Your task to perform on an android device: change the clock display to show seconds Image 0: 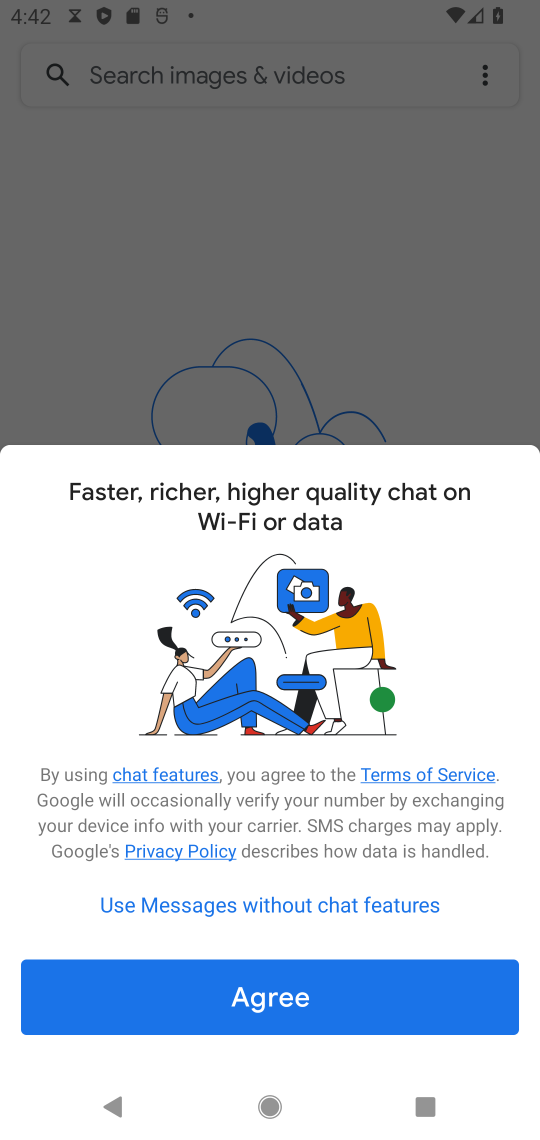
Step 0: press home button
Your task to perform on an android device: change the clock display to show seconds Image 1: 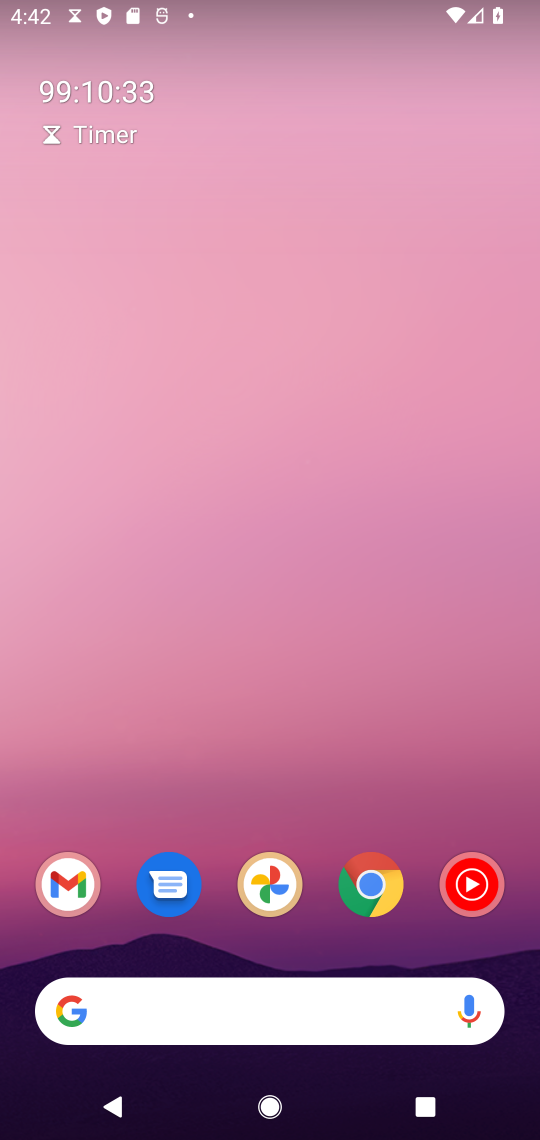
Step 1: drag from (415, 1012) to (497, 333)
Your task to perform on an android device: change the clock display to show seconds Image 2: 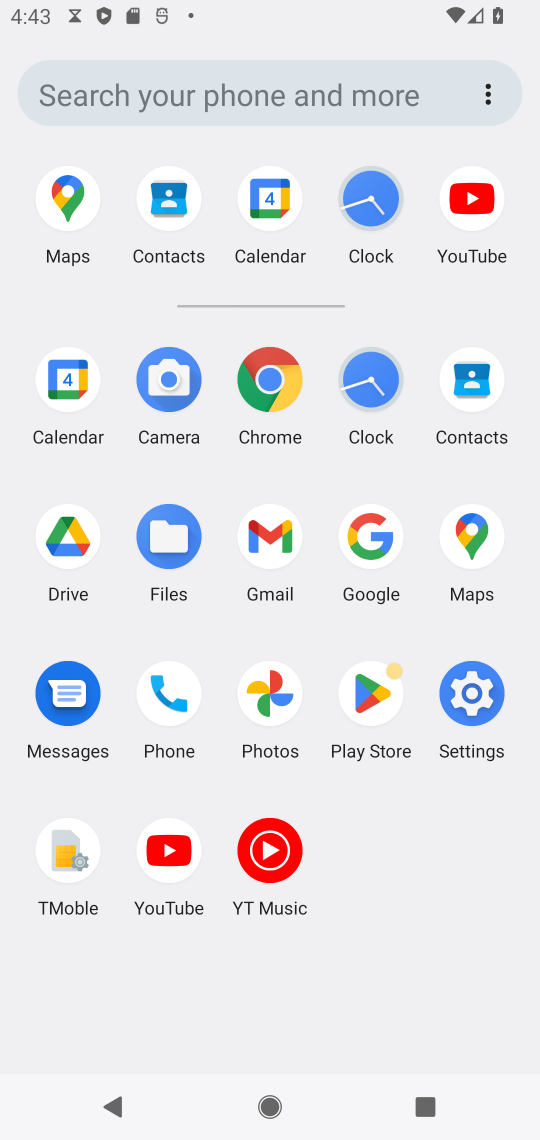
Step 2: click (374, 382)
Your task to perform on an android device: change the clock display to show seconds Image 3: 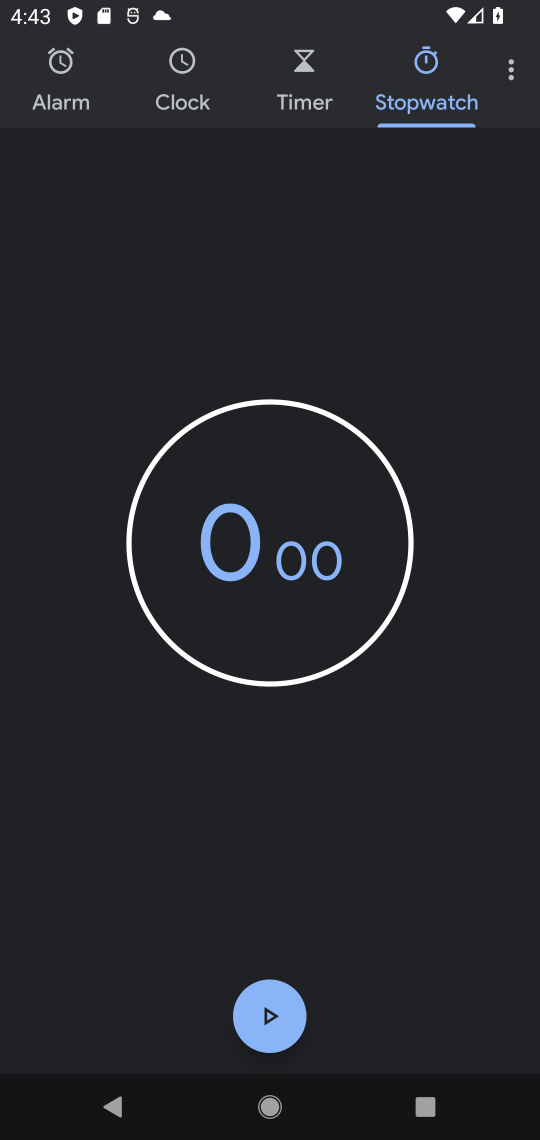
Step 3: click (512, 85)
Your task to perform on an android device: change the clock display to show seconds Image 4: 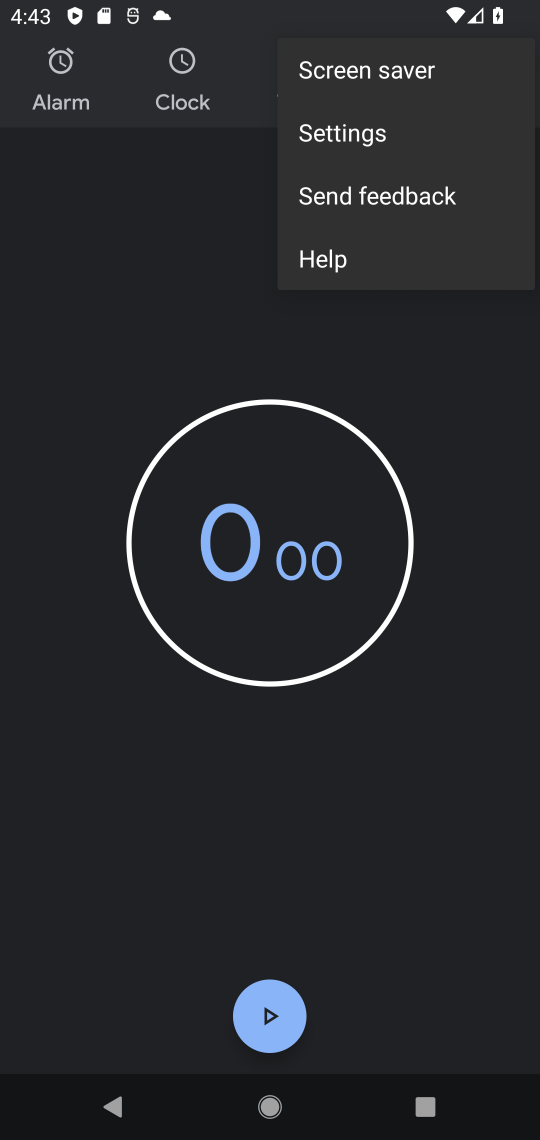
Step 4: click (383, 135)
Your task to perform on an android device: change the clock display to show seconds Image 5: 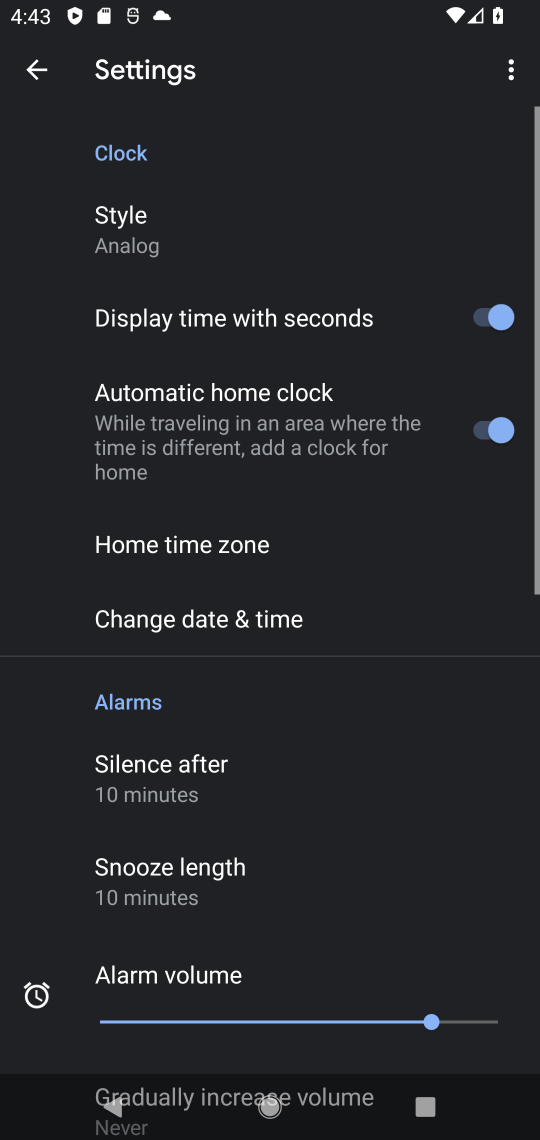
Step 5: click (188, 225)
Your task to perform on an android device: change the clock display to show seconds Image 6: 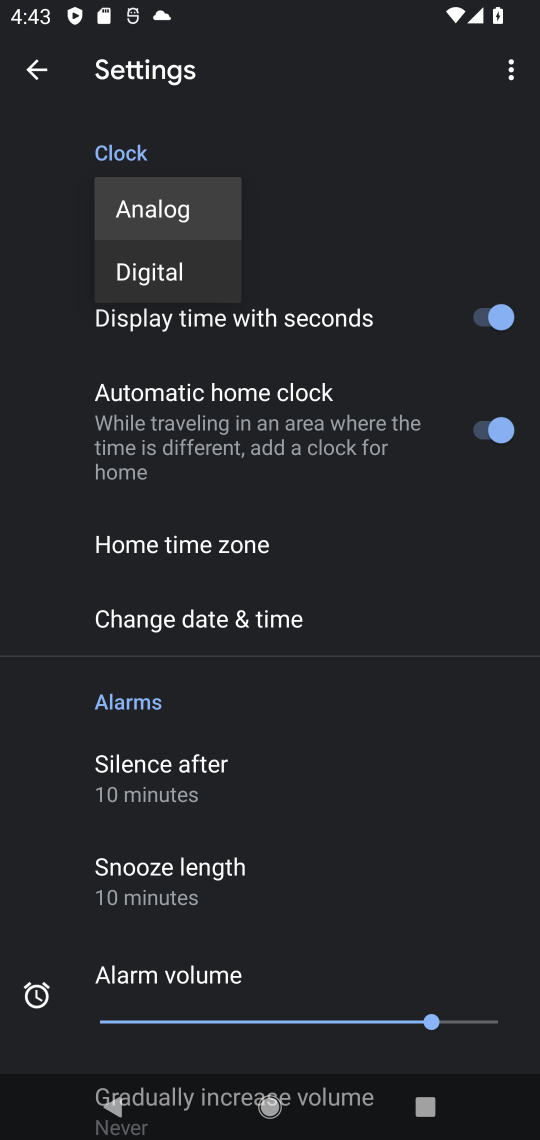
Step 6: click (491, 332)
Your task to perform on an android device: change the clock display to show seconds Image 7: 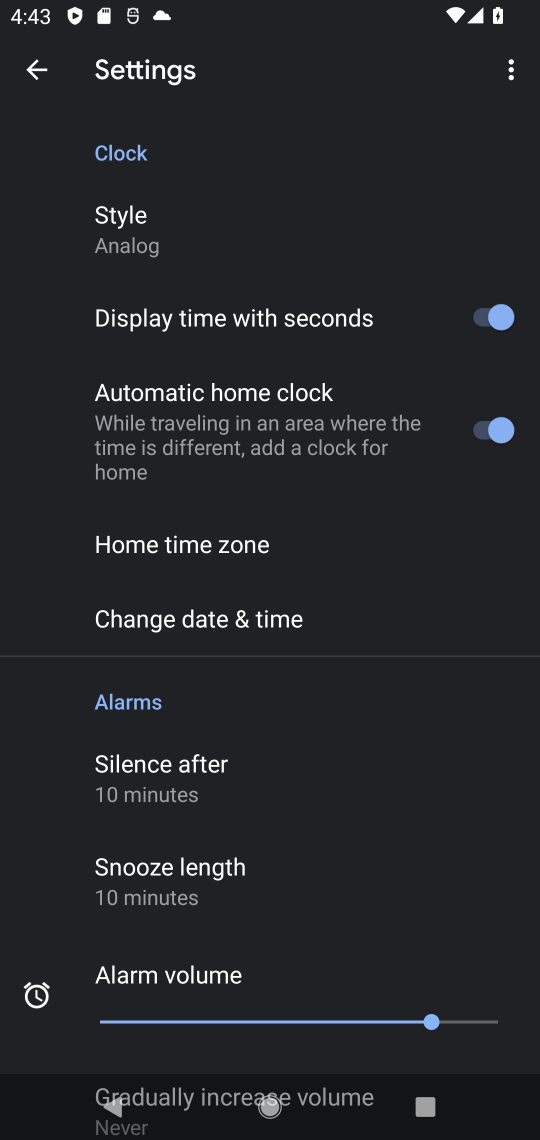
Step 7: click (494, 325)
Your task to perform on an android device: change the clock display to show seconds Image 8: 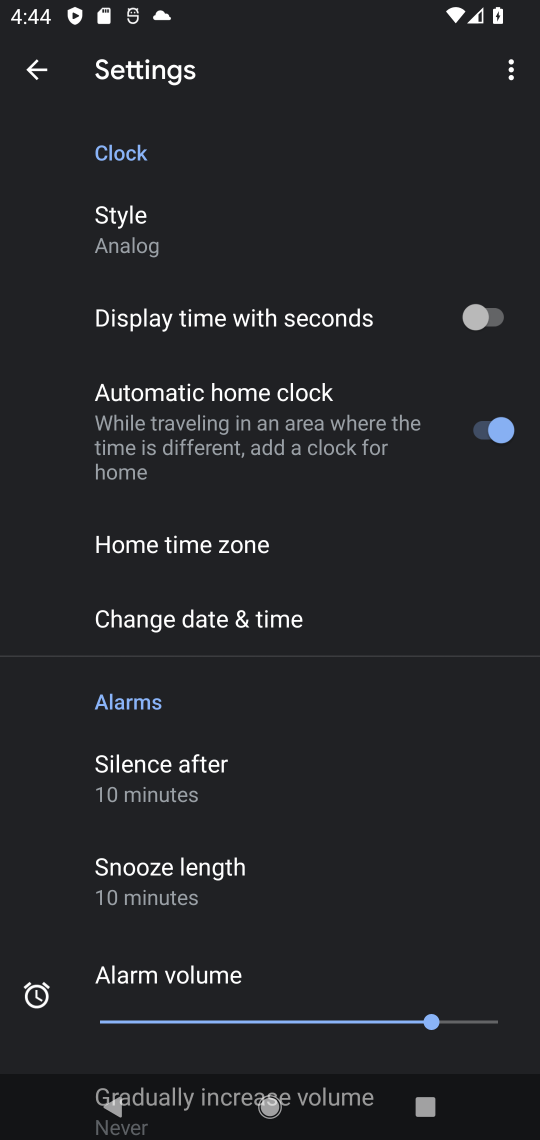
Step 8: task complete